Your task to perform on an android device: Search for Mexican restaurants on Maps Image 0: 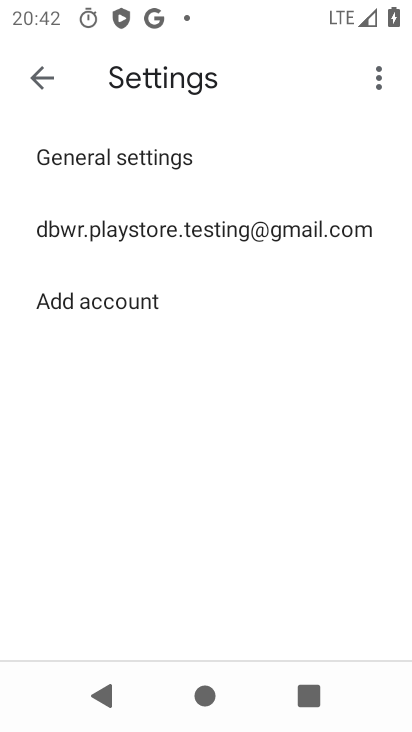
Step 0: press back button
Your task to perform on an android device: Search for Mexican restaurants on Maps Image 1: 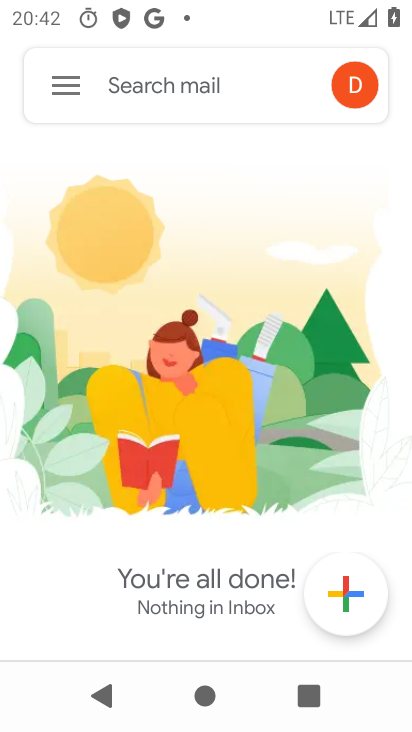
Step 1: press back button
Your task to perform on an android device: Search for Mexican restaurants on Maps Image 2: 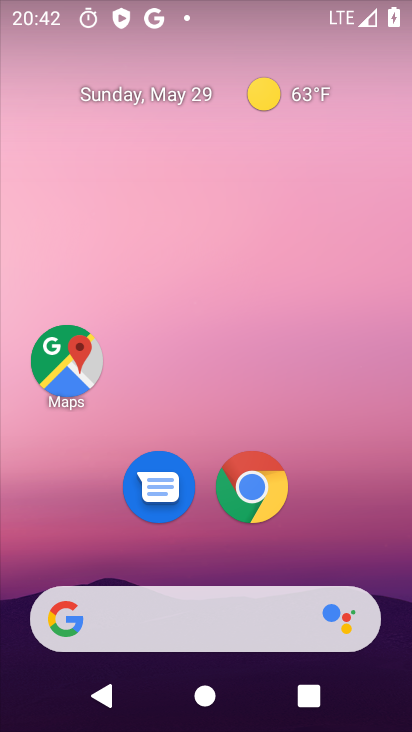
Step 2: click (68, 360)
Your task to perform on an android device: Search for Mexican restaurants on Maps Image 3: 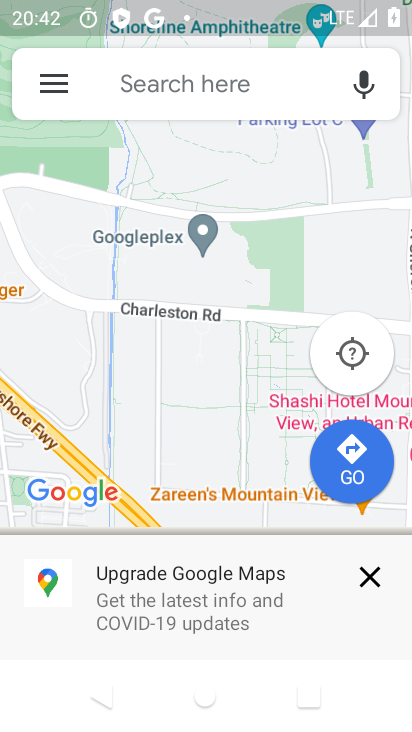
Step 3: click (167, 79)
Your task to perform on an android device: Search for Mexican restaurants on Maps Image 4: 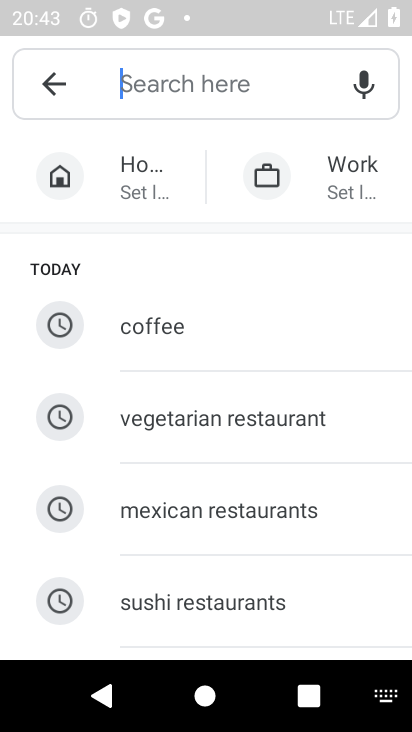
Step 4: type "Mexican restaurants"
Your task to perform on an android device: Search for Mexican restaurants on Maps Image 5: 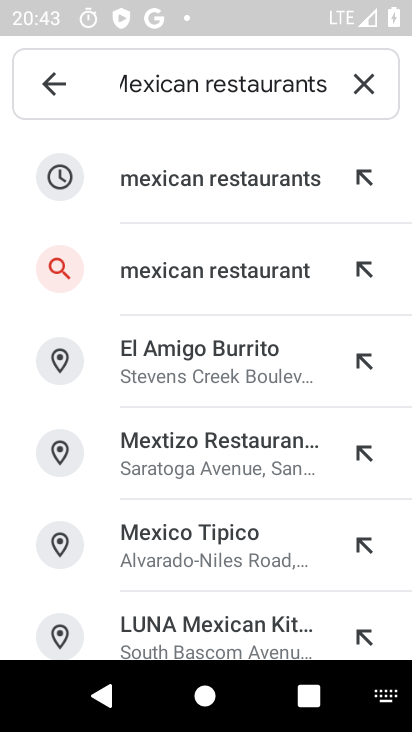
Step 5: click (230, 182)
Your task to perform on an android device: Search for Mexican restaurants on Maps Image 6: 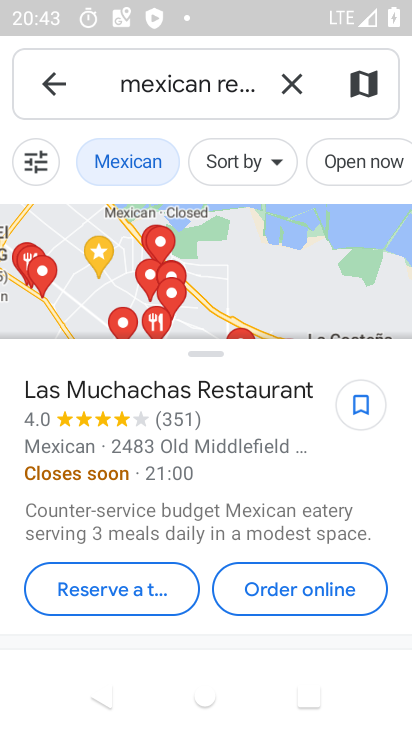
Step 6: task complete